Your task to perform on an android device: see creations saved in the google photos Image 0: 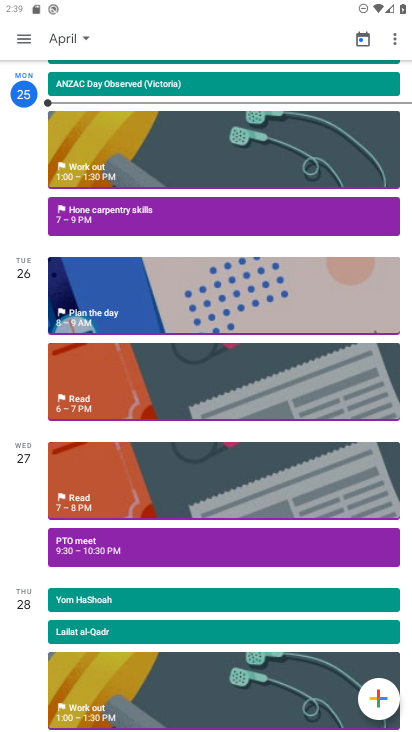
Step 0: press home button
Your task to perform on an android device: see creations saved in the google photos Image 1: 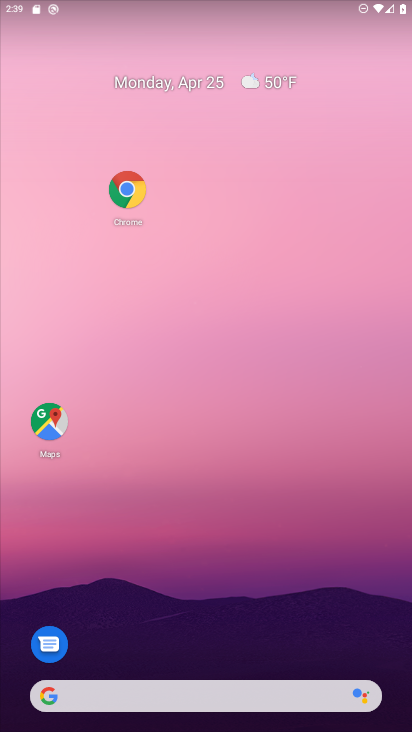
Step 1: drag from (114, 550) to (120, 198)
Your task to perform on an android device: see creations saved in the google photos Image 2: 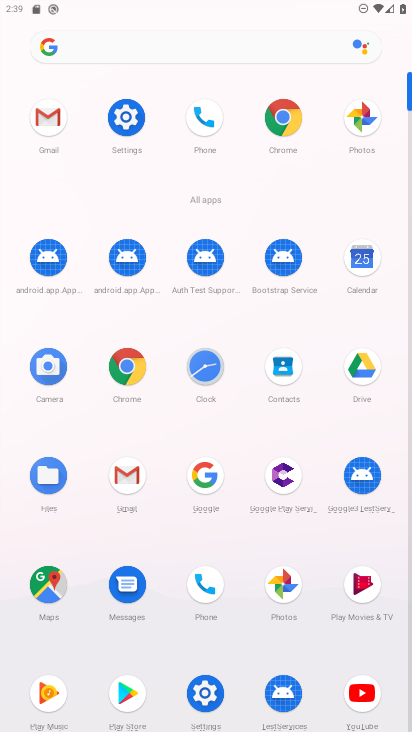
Step 2: click (359, 118)
Your task to perform on an android device: see creations saved in the google photos Image 3: 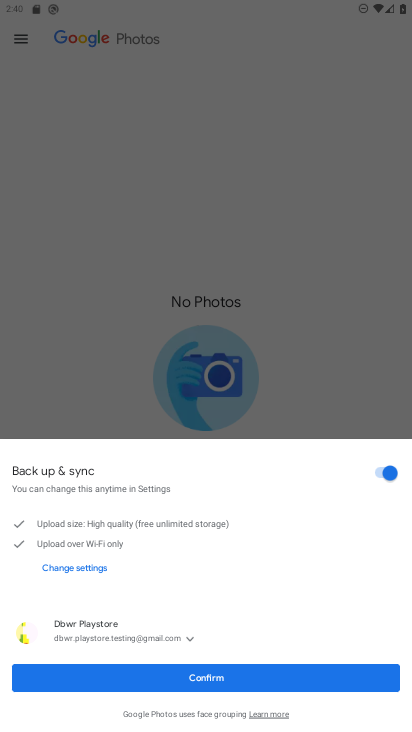
Step 3: click (138, 668)
Your task to perform on an android device: see creations saved in the google photos Image 4: 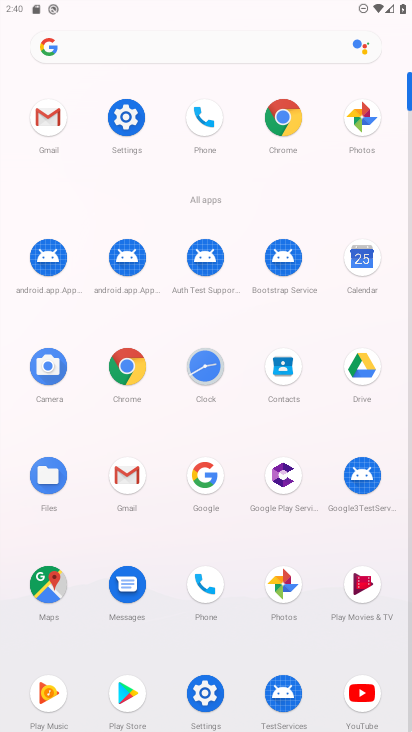
Step 4: click (278, 585)
Your task to perform on an android device: see creations saved in the google photos Image 5: 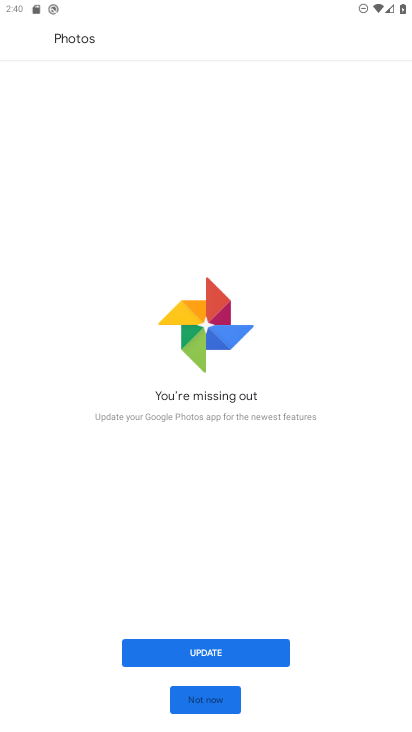
Step 5: click (215, 657)
Your task to perform on an android device: see creations saved in the google photos Image 6: 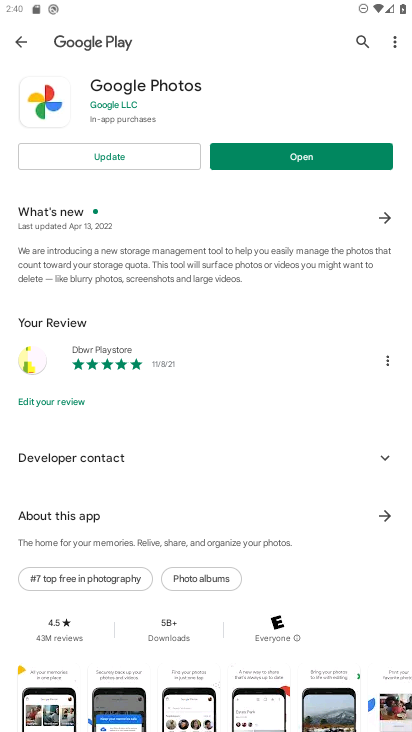
Step 6: click (137, 160)
Your task to perform on an android device: see creations saved in the google photos Image 7: 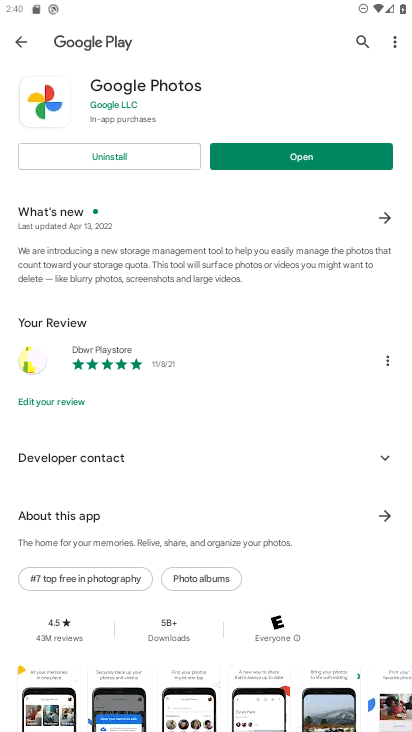
Step 7: click (277, 156)
Your task to perform on an android device: see creations saved in the google photos Image 8: 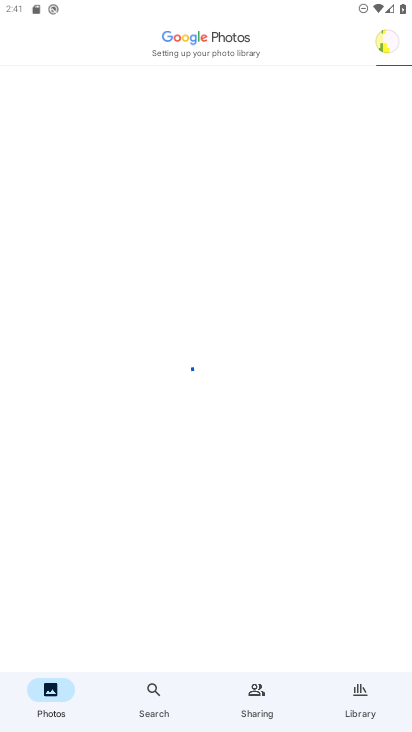
Step 8: click (356, 700)
Your task to perform on an android device: see creations saved in the google photos Image 9: 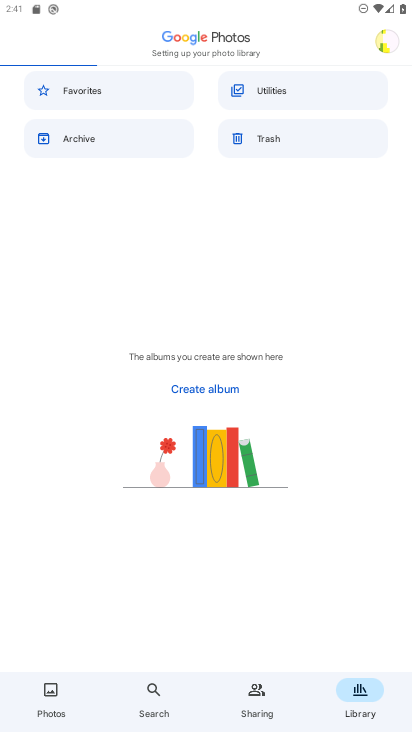
Step 9: task complete